Your task to perform on an android device: turn on sleep mode Image 0: 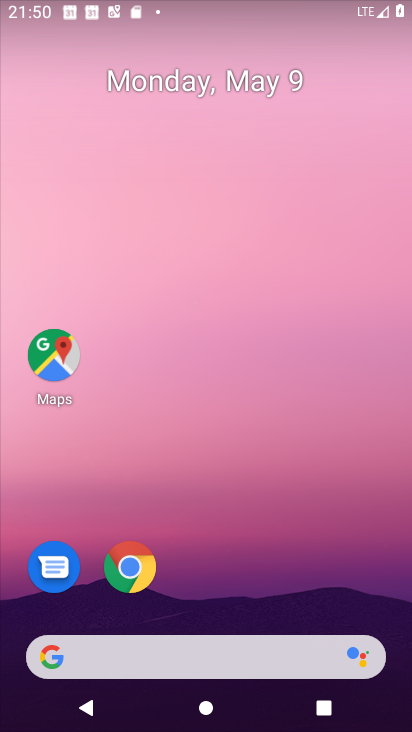
Step 0: drag from (179, 630) to (311, 182)
Your task to perform on an android device: turn on sleep mode Image 1: 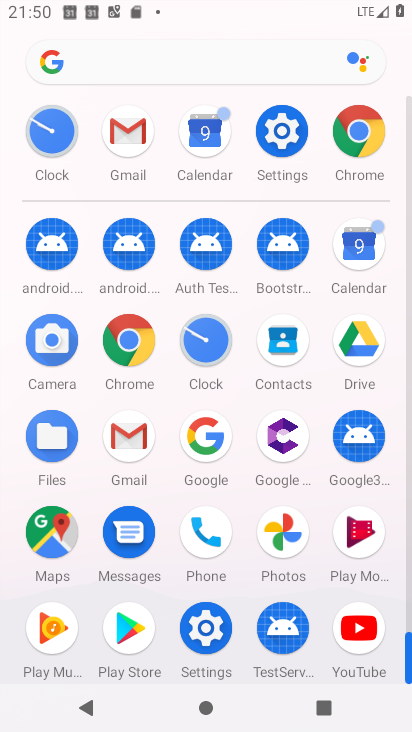
Step 1: click (293, 141)
Your task to perform on an android device: turn on sleep mode Image 2: 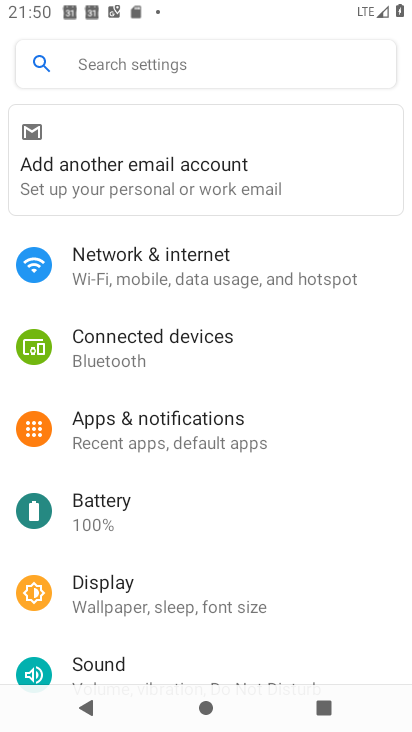
Step 2: click (145, 587)
Your task to perform on an android device: turn on sleep mode Image 3: 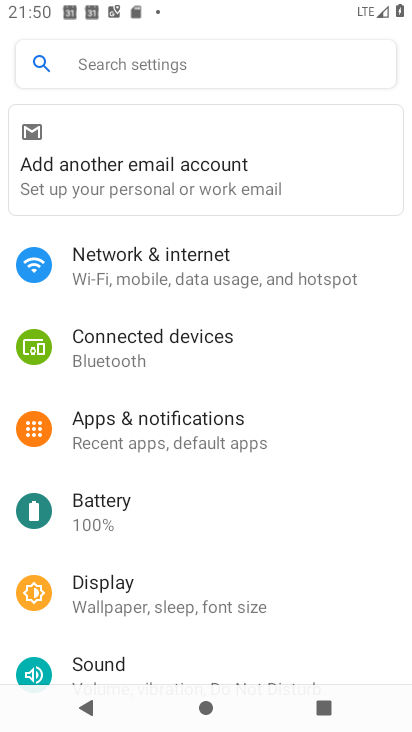
Step 3: click (145, 587)
Your task to perform on an android device: turn on sleep mode Image 4: 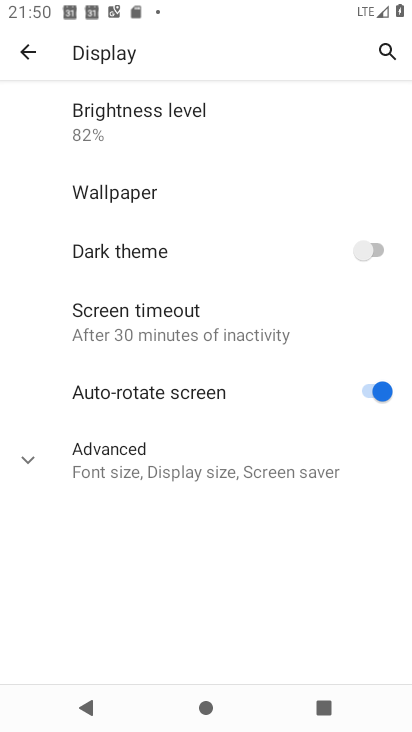
Step 4: click (192, 333)
Your task to perform on an android device: turn on sleep mode Image 5: 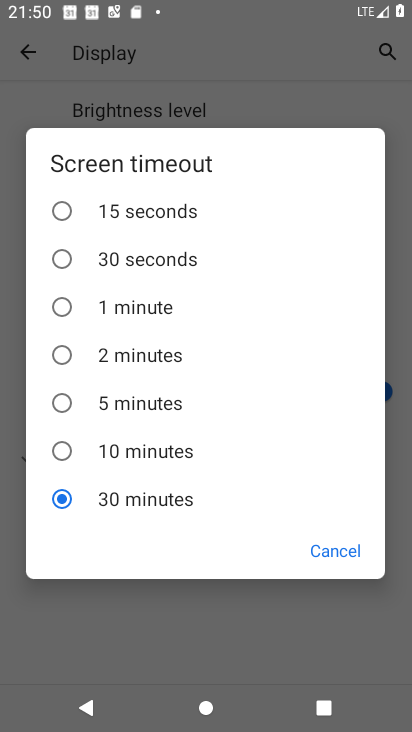
Step 5: task complete